Your task to perform on an android device: empty trash in the gmail app Image 0: 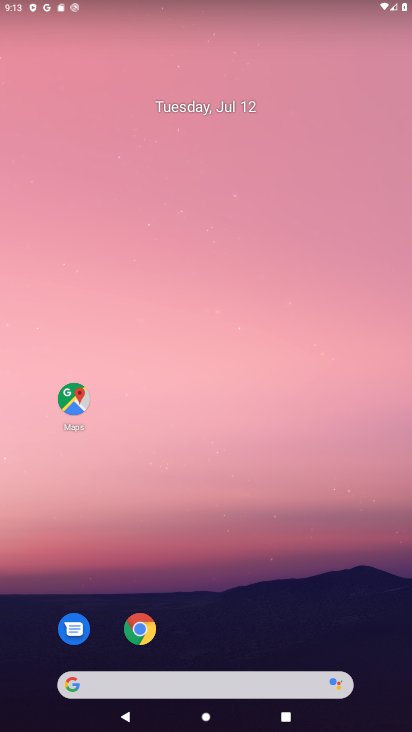
Step 0: drag from (291, 642) to (245, 173)
Your task to perform on an android device: empty trash in the gmail app Image 1: 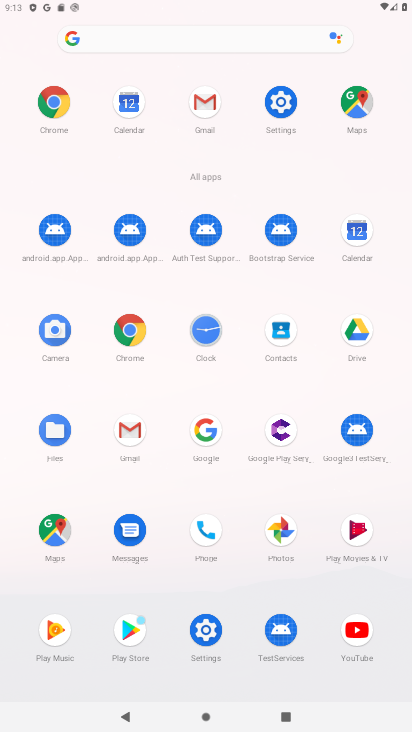
Step 1: click (208, 107)
Your task to perform on an android device: empty trash in the gmail app Image 2: 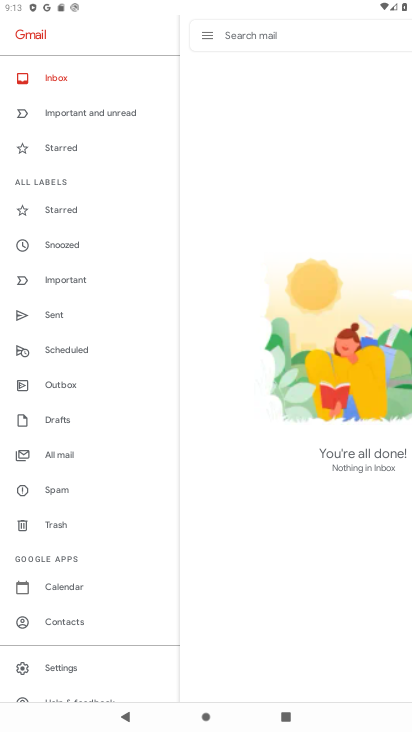
Step 2: click (50, 519)
Your task to perform on an android device: empty trash in the gmail app Image 3: 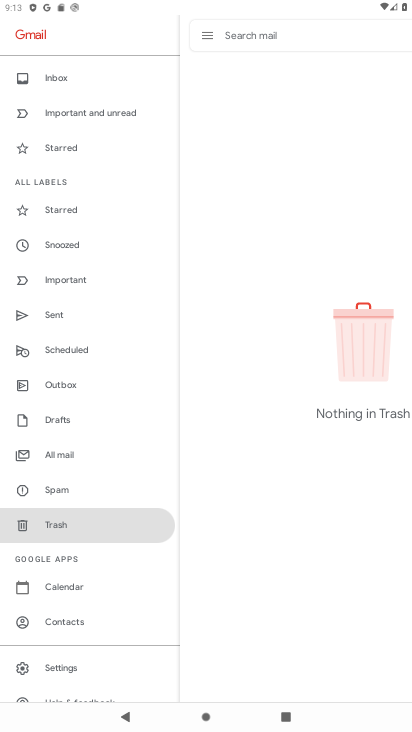
Step 3: task complete